Your task to perform on an android device: Open Wikipedia Image 0: 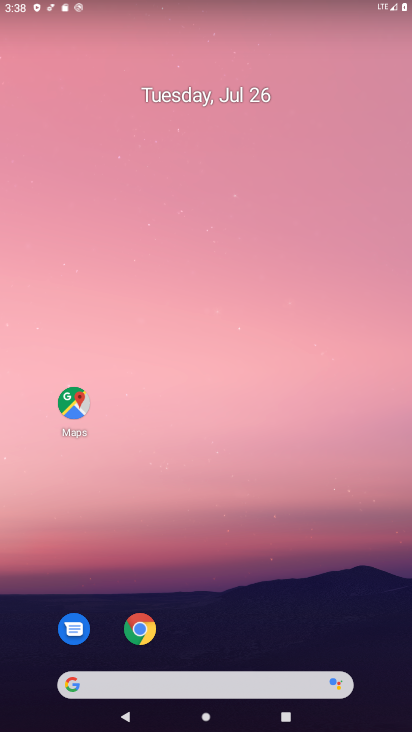
Step 0: click (137, 630)
Your task to perform on an android device: Open Wikipedia Image 1: 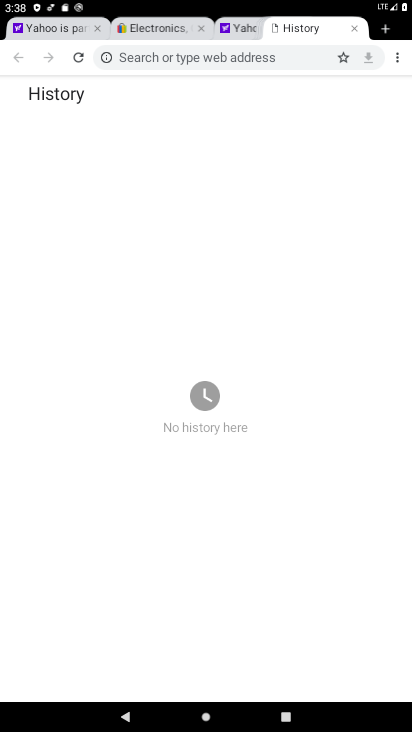
Step 1: click (399, 59)
Your task to perform on an android device: Open Wikipedia Image 2: 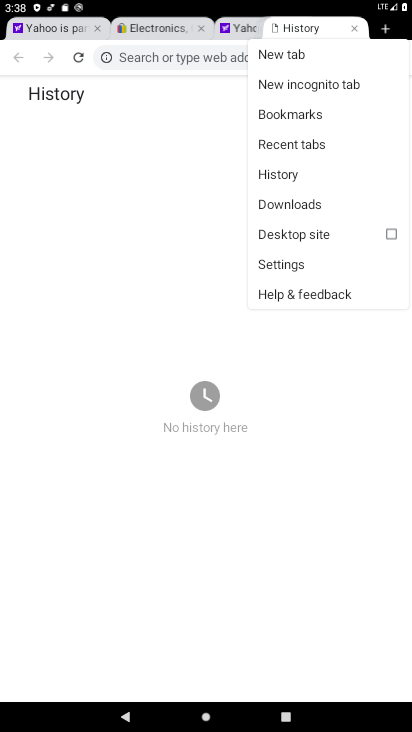
Step 2: click (292, 51)
Your task to perform on an android device: Open Wikipedia Image 3: 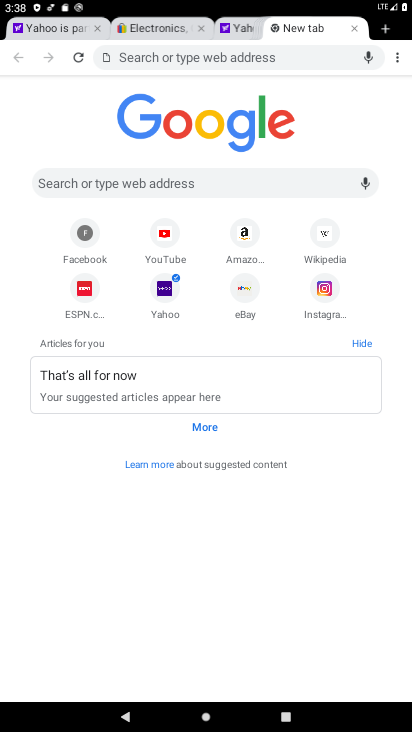
Step 3: click (323, 232)
Your task to perform on an android device: Open Wikipedia Image 4: 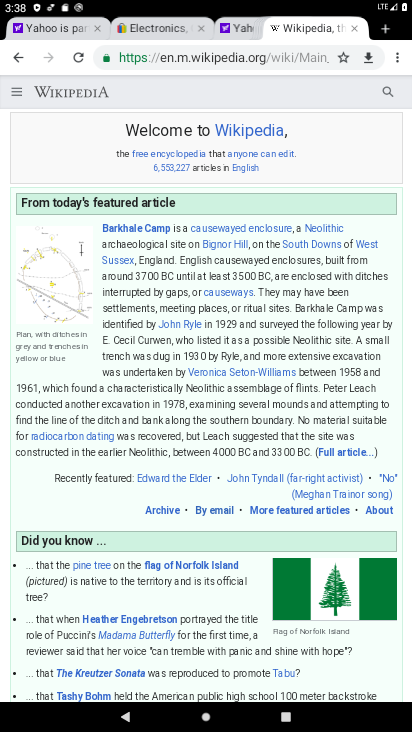
Step 4: task complete